Your task to perform on an android device: find photos in the google photos app Image 0: 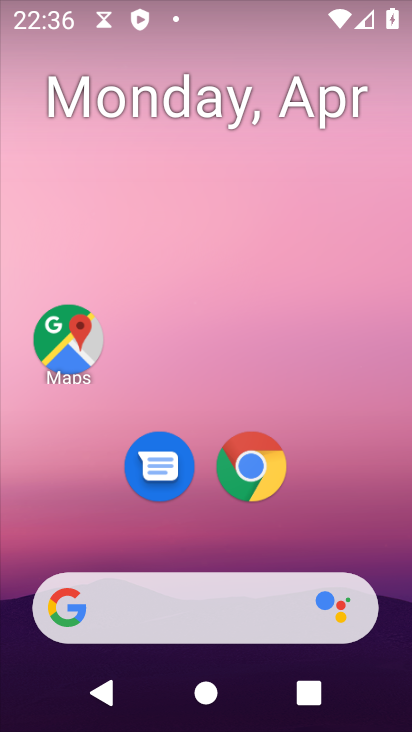
Step 0: drag from (259, 546) to (275, 108)
Your task to perform on an android device: find photos in the google photos app Image 1: 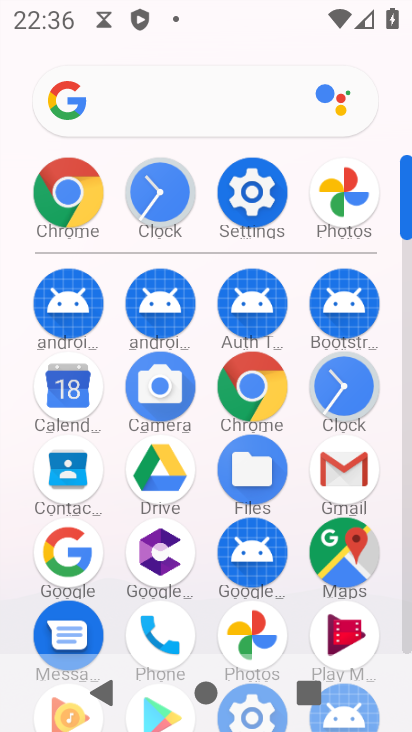
Step 1: click (347, 204)
Your task to perform on an android device: find photos in the google photos app Image 2: 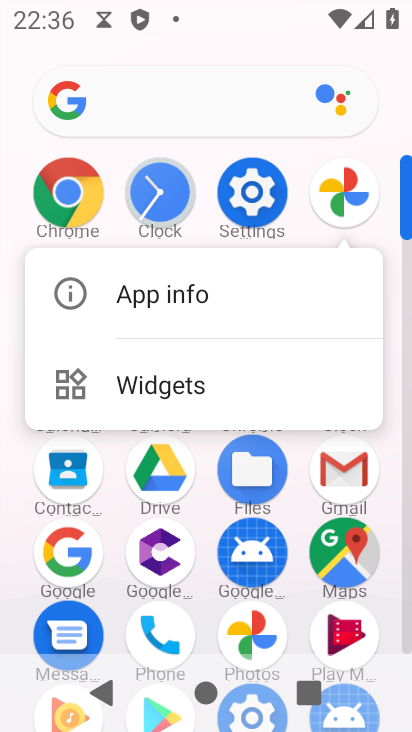
Step 2: click (347, 204)
Your task to perform on an android device: find photos in the google photos app Image 3: 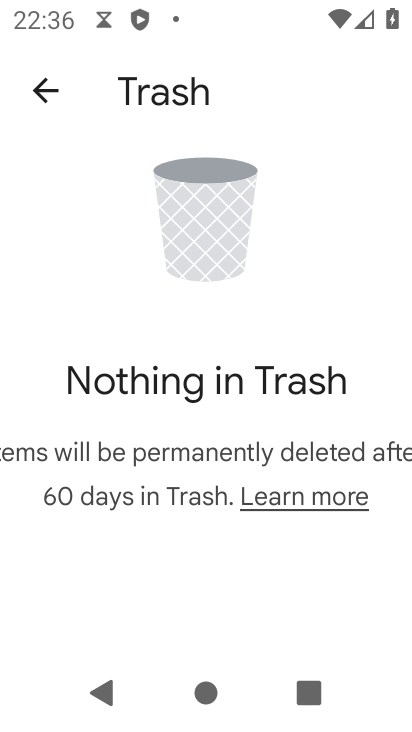
Step 3: press back button
Your task to perform on an android device: find photos in the google photos app Image 4: 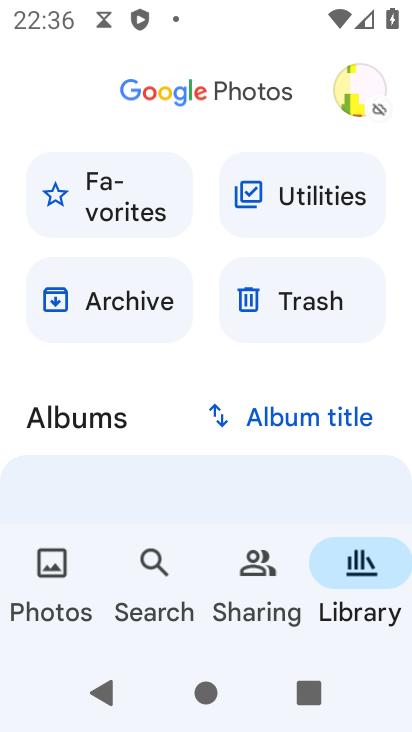
Step 4: click (60, 583)
Your task to perform on an android device: find photos in the google photos app Image 5: 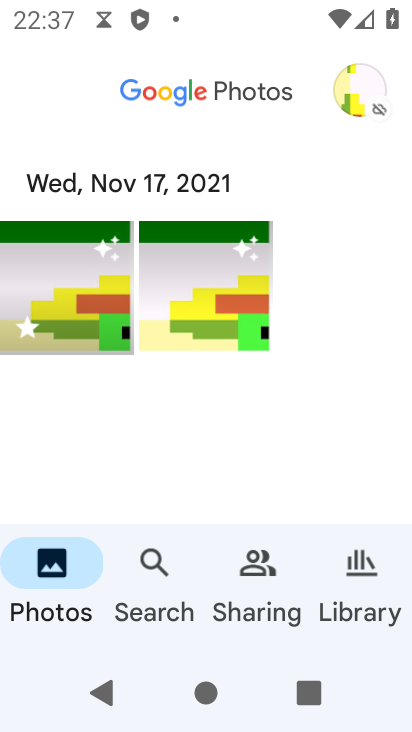
Step 5: click (62, 341)
Your task to perform on an android device: find photos in the google photos app Image 6: 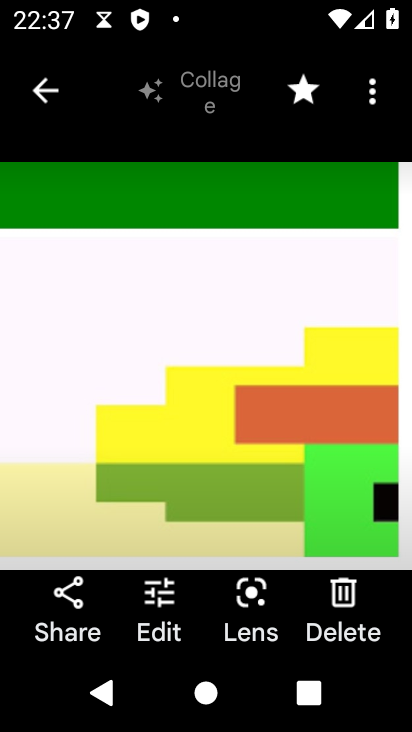
Step 6: task complete